Your task to perform on an android device: turn off data saver in the chrome app Image 0: 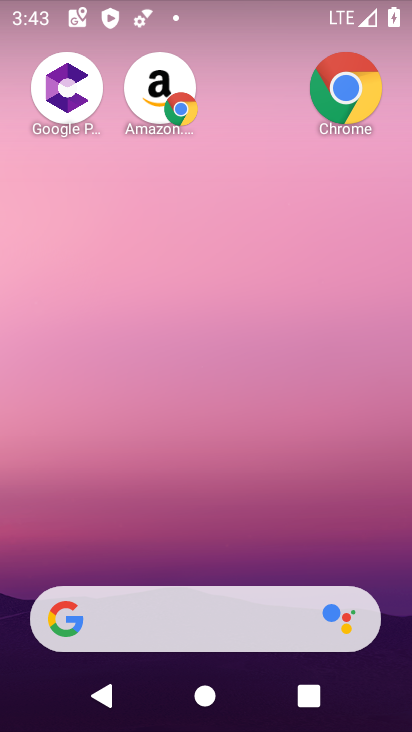
Step 0: click (351, 83)
Your task to perform on an android device: turn off data saver in the chrome app Image 1: 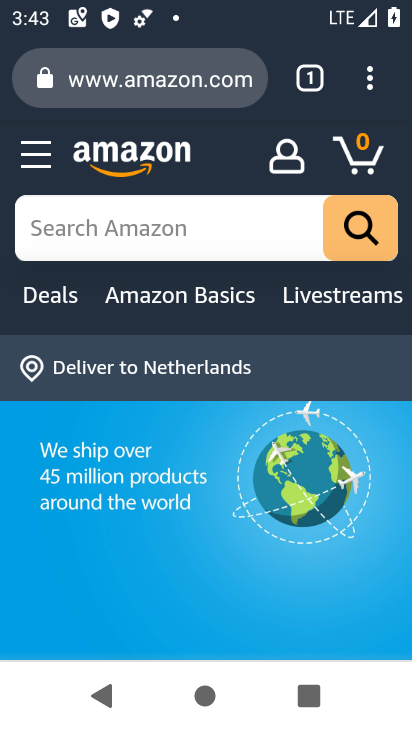
Step 1: click (368, 73)
Your task to perform on an android device: turn off data saver in the chrome app Image 2: 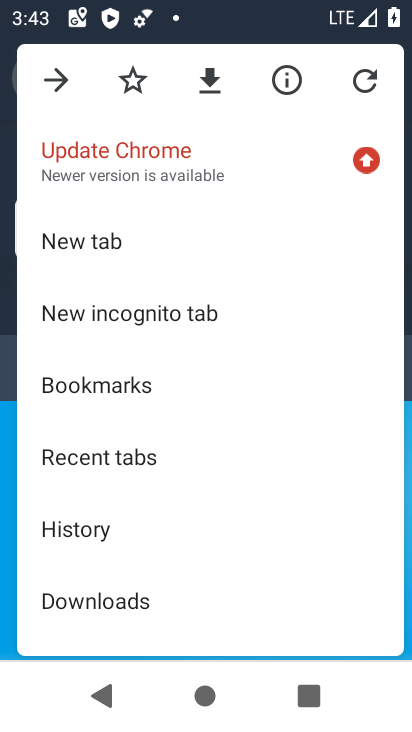
Step 2: drag from (172, 555) to (252, 393)
Your task to perform on an android device: turn off data saver in the chrome app Image 3: 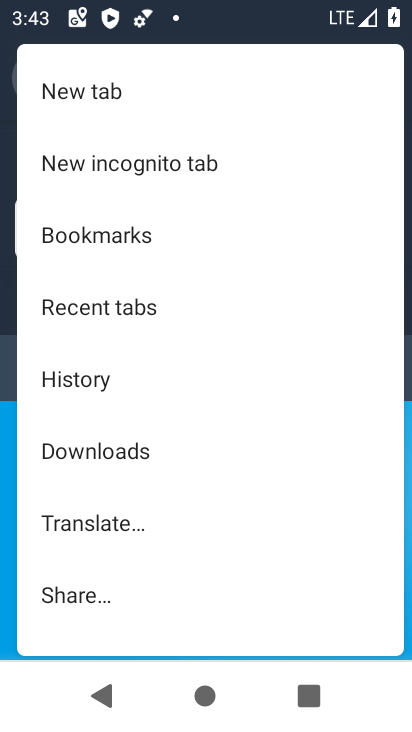
Step 3: drag from (208, 533) to (240, 457)
Your task to perform on an android device: turn off data saver in the chrome app Image 4: 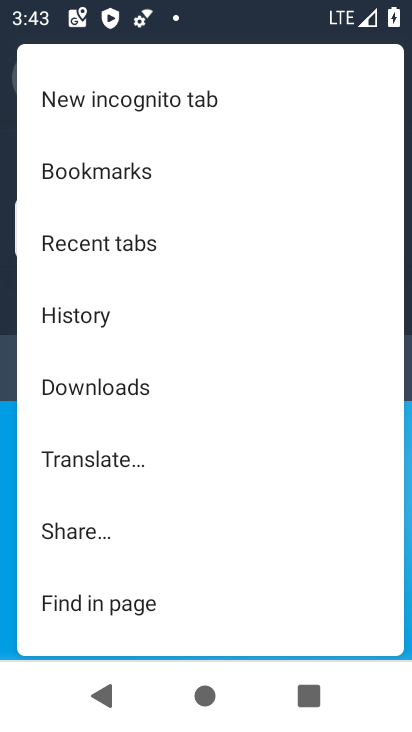
Step 4: drag from (176, 546) to (204, 457)
Your task to perform on an android device: turn off data saver in the chrome app Image 5: 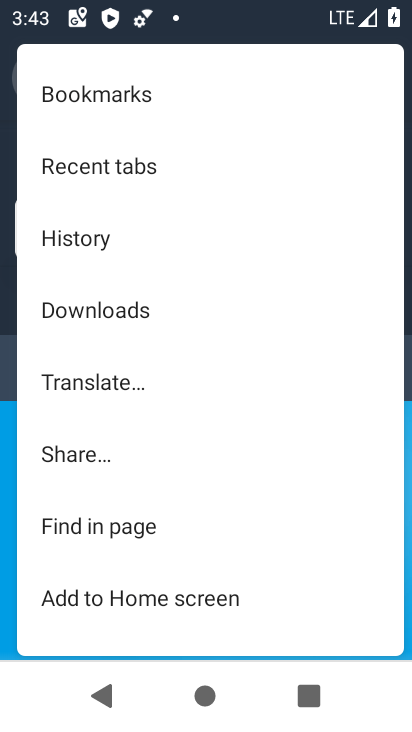
Step 5: drag from (191, 535) to (266, 415)
Your task to perform on an android device: turn off data saver in the chrome app Image 6: 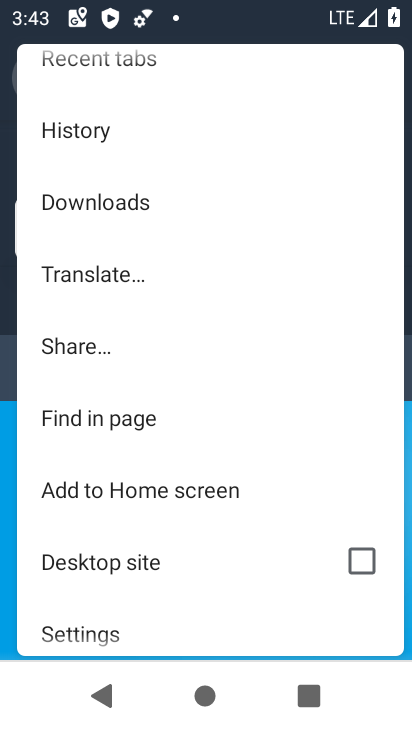
Step 6: drag from (211, 551) to (293, 443)
Your task to perform on an android device: turn off data saver in the chrome app Image 7: 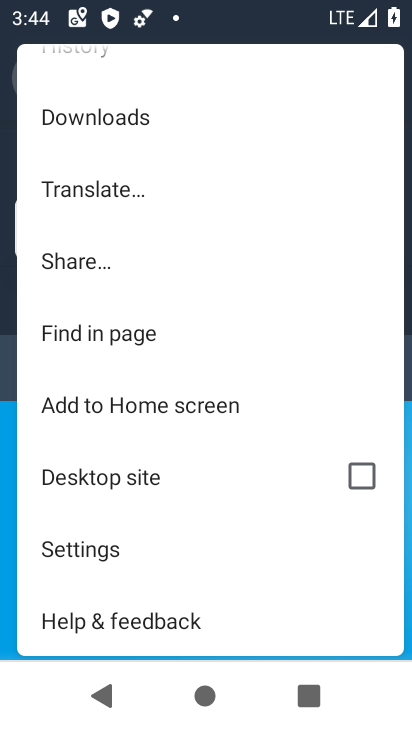
Step 7: click (85, 541)
Your task to perform on an android device: turn off data saver in the chrome app Image 8: 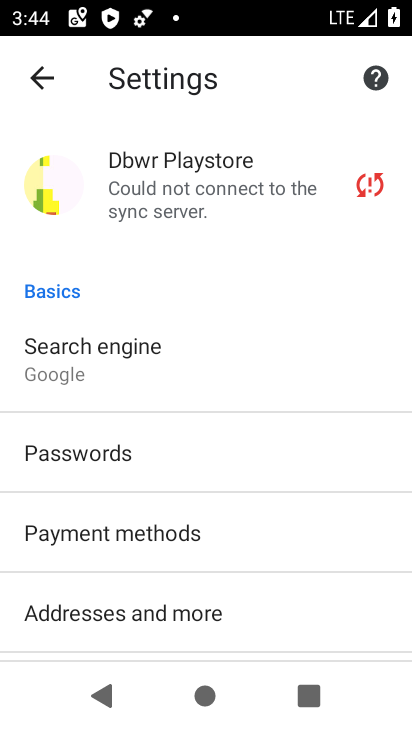
Step 8: drag from (153, 582) to (229, 487)
Your task to perform on an android device: turn off data saver in the chrome app Image 9: 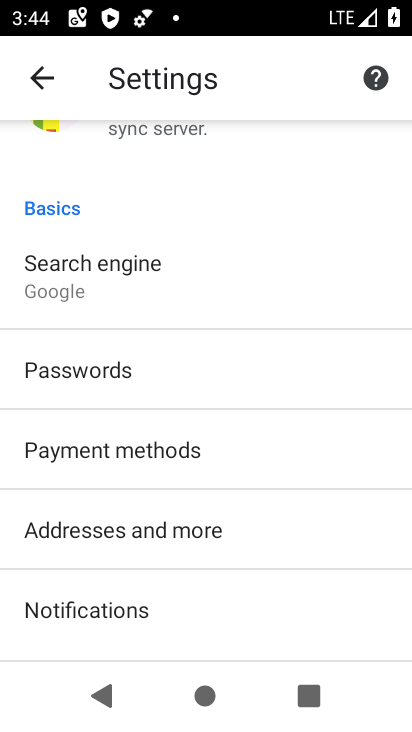
Step 9: drag from (207, 581) to (281, 478)
Your task to perform on an android device: turn off data saver in the chrome app Image 10: 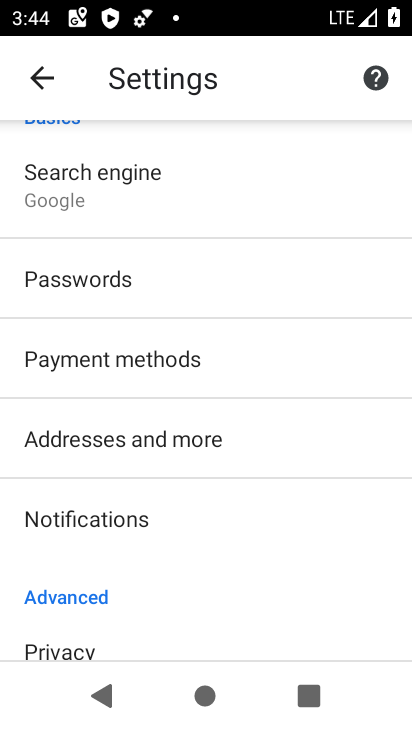
Step 10: drag from (227, 578) to (293, 468)
Your task to perform on an android device: turn off data saver in the chrome app Image 11: 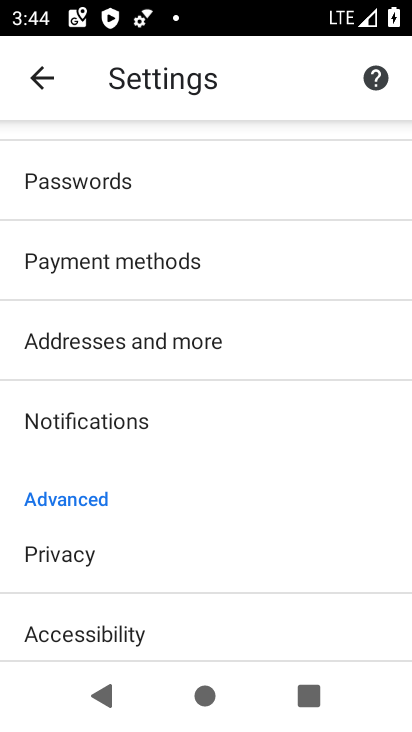
Step 11: drag from (244, 527) to (272, 445)
Your task to perform on an android device: turn off data saver in the chrome app Image 12: 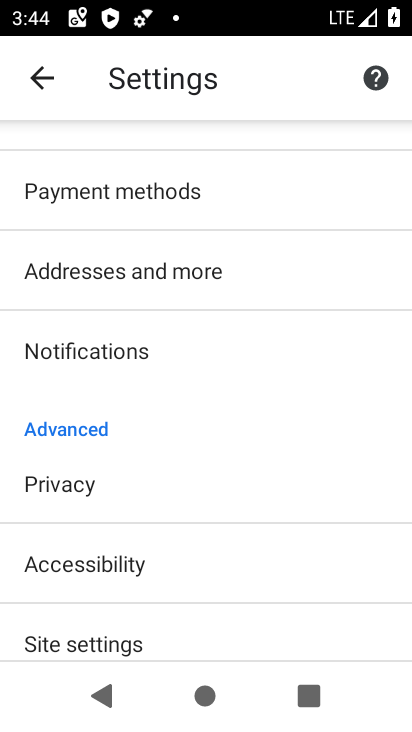
Step 12: drag from (255, 548) to (286, 452)
Your task to perform on an android device: turn off data saver in the chrome app Image 13: 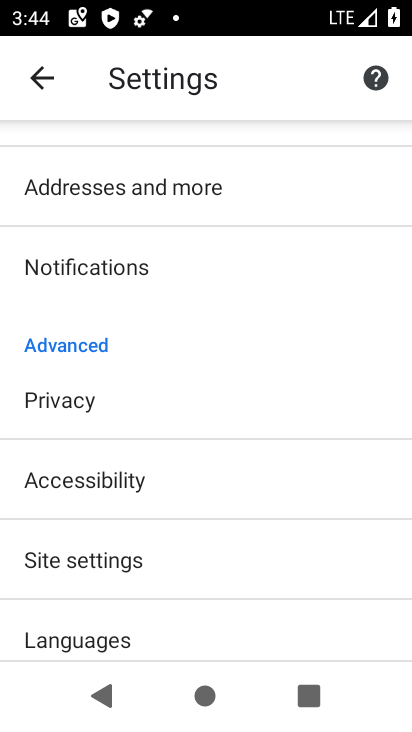
Step 13: drag from (216, 551) to (284, 449)
Your task to perform on an android device: turn off data saver in the chrome app Image 14: 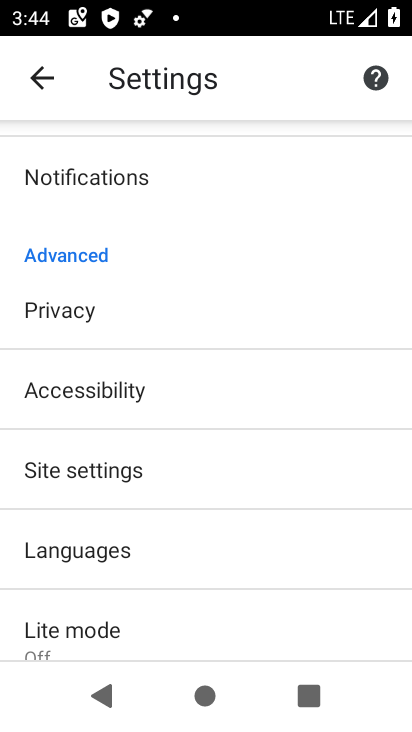
Step 14: drag from (224, 552) to (282, 466)
Your task to perform on an android device: turn off data saver in the chrome app Image 15: 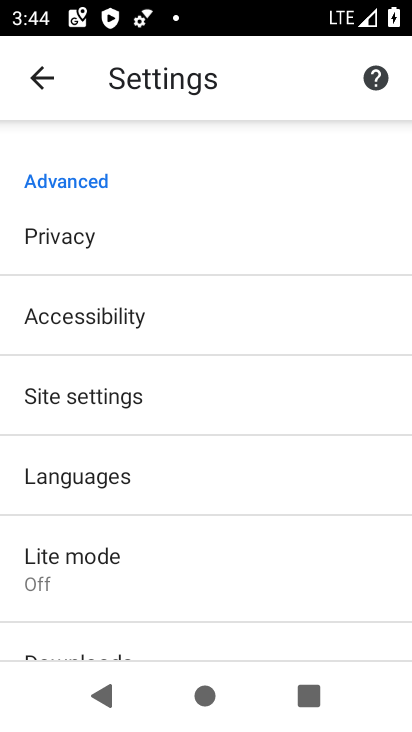
Step 15: click (81, 569)
Your task to perform on an android device: turn off data saver in the chrome app Image 16: 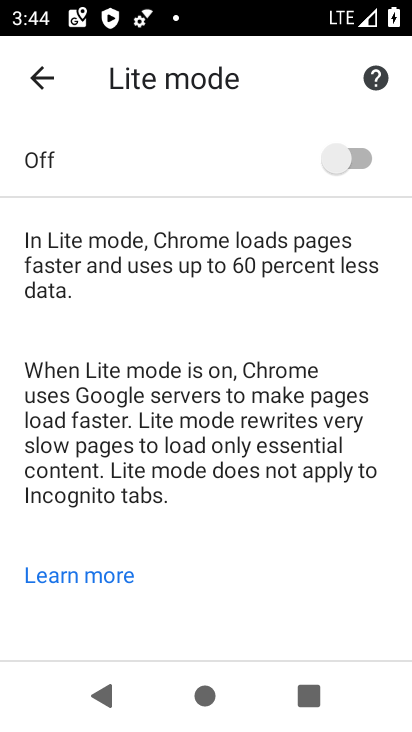
Step 16: task complete